Your task to perform on an android device: check android version Image 0: 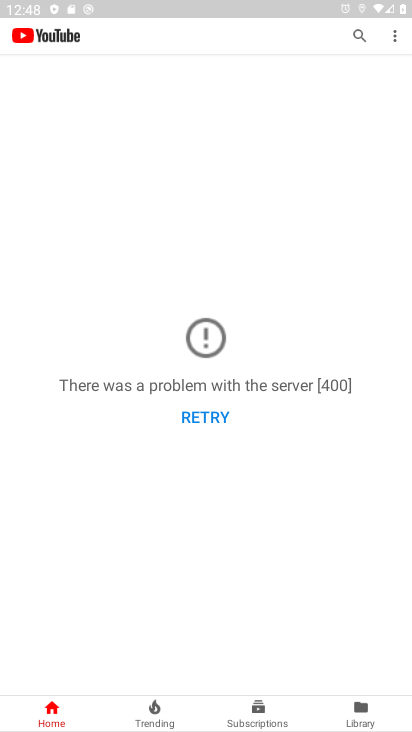
Step 0: press home button
Your task to perform on an android device: check android version Image 1: 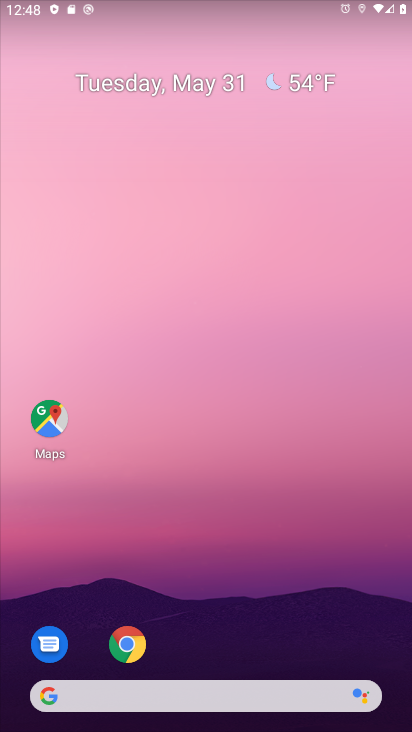
Step 1: drag from (242, 652) to (271, 158)
Your task to perform on an android device: check android version Image 2: 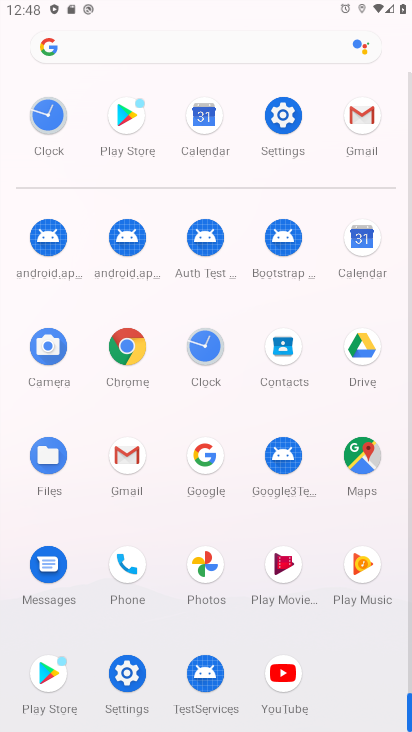
Step 2: click (282, 118)
Your task to perform on an android device: check android version Image 3: 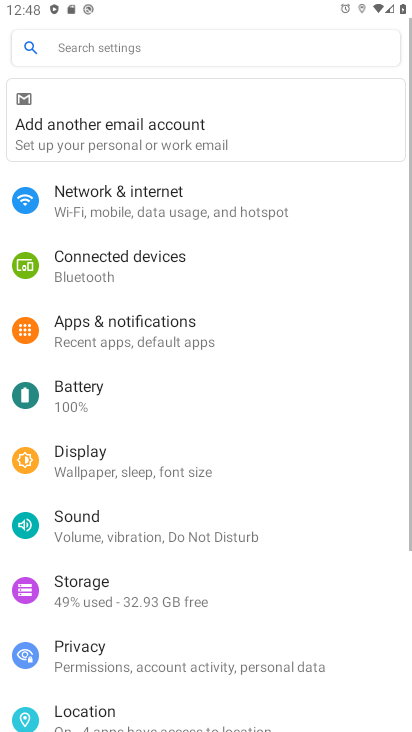
Step 3: drag from (341, 650) to (367, 99)
Your task to perform on an android device: check android version Image 4: 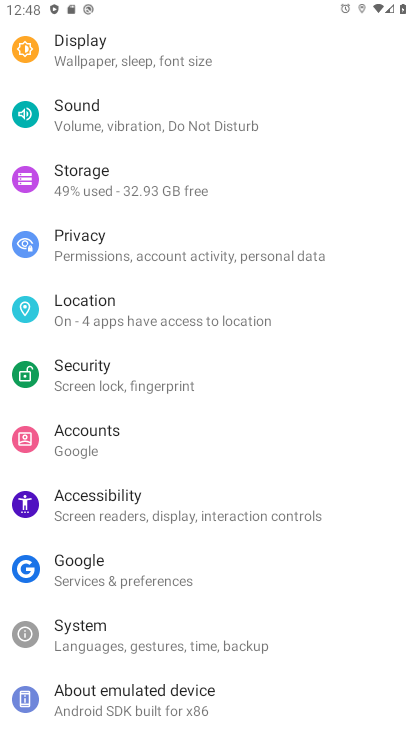
Step 4: drag from (323, 633) to (313, 265)
Your task to perform on an android device: check android version Image 5: 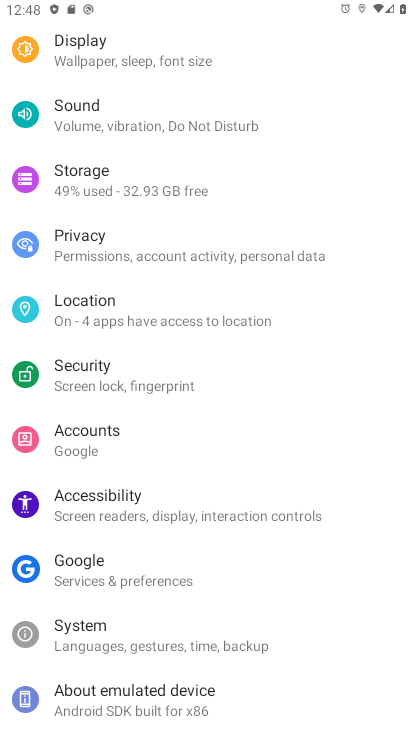
Step 5: click (114, 691)
Your task to perform on an android device: check android version Image 6: 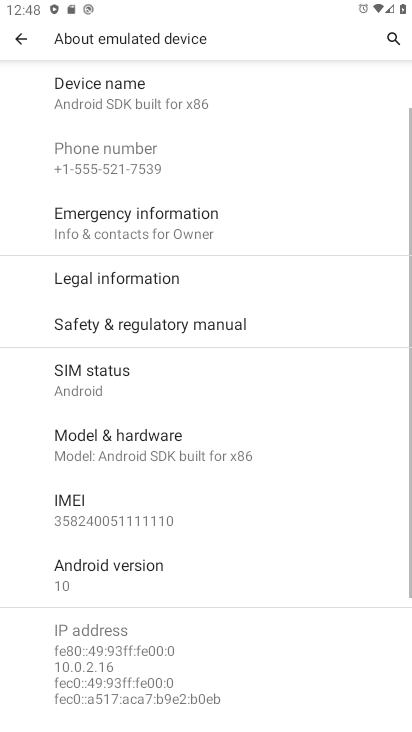
Step 6: task complete